Your task to perform on an android device: change notifications settings Image 0: 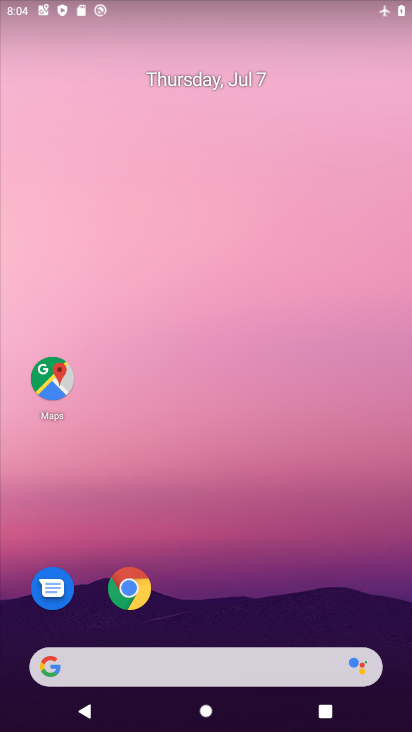
Step 0: drag from (316, 548) to (278, 325)
Your task to perform on an android device: change notifications settings Image 1: 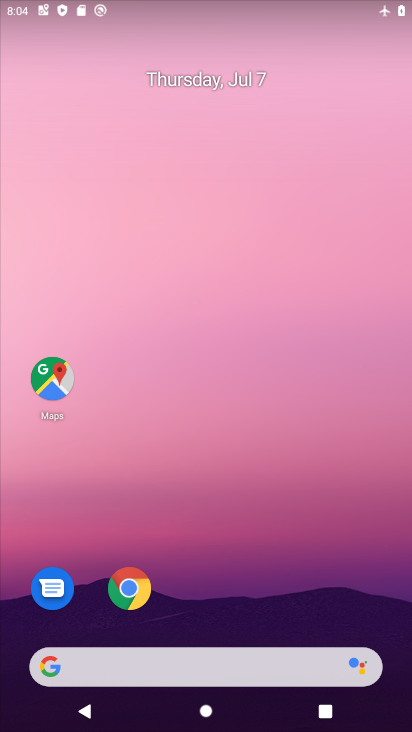
Step 1: drag from (309, 598) to (269, 73)
Your task to perform on an android device: change notifications settings Image 2: 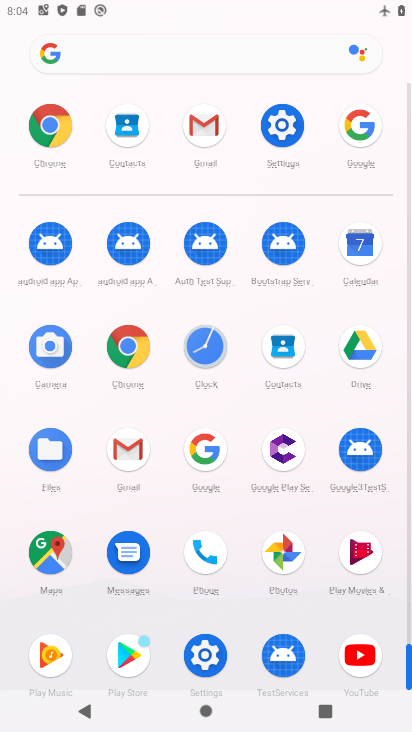
Step 2: click (293, 119)
Your task to perform on an android device: change notifications settings Image 3: 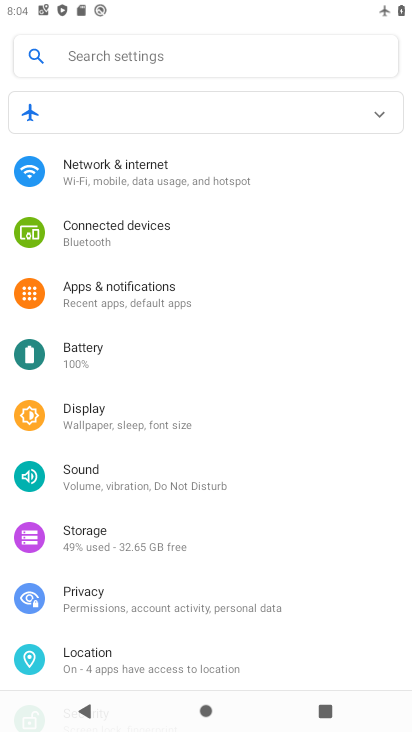
Step 3: click (150, 292)
Your task to perform on an android device: change notifications settings Image 4: 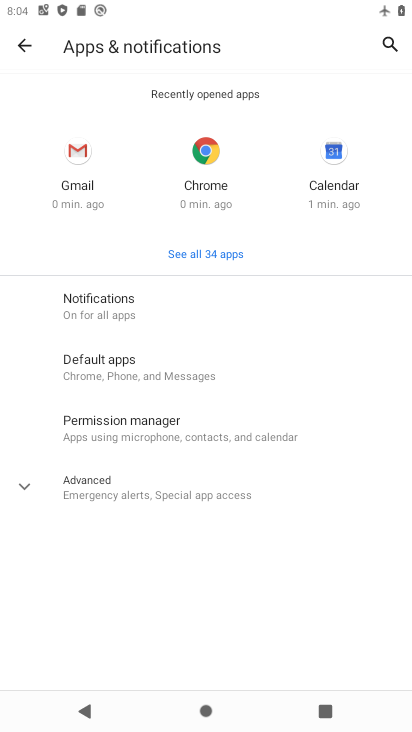
Step 4: click (116, 314)
Your task to perform on an android device: change notifications settings Image 5: 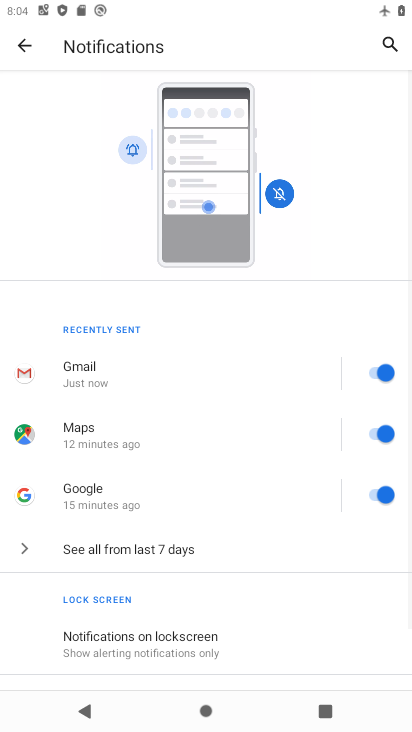
Step 5: drag from (319, 654) to (338, 129)
Your task to perform on an android device: change notifications settings Image 6: 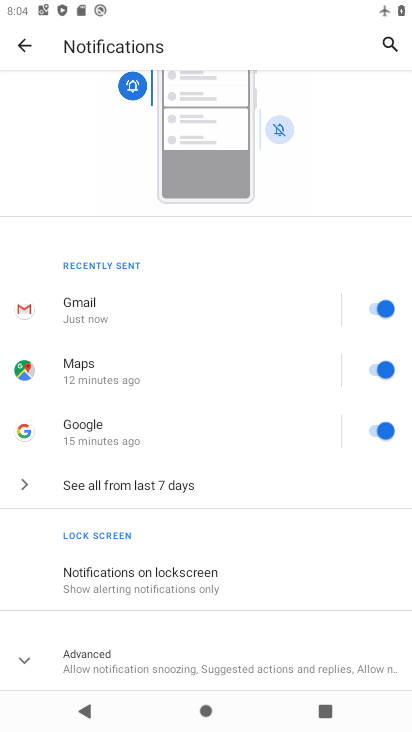
Step 6: click (189, 668)
Your task to perform on an android device: change notifications settings Image 7: 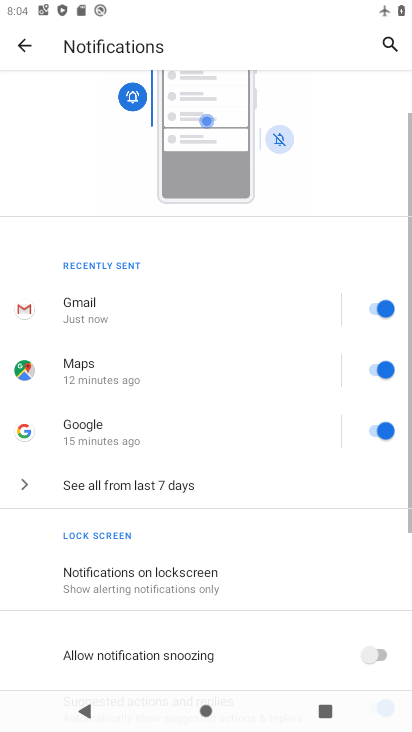
Step 7: drag from (313, 563) to (322, 193)
Your task to perform on an android device: change notifications settings Image 8: 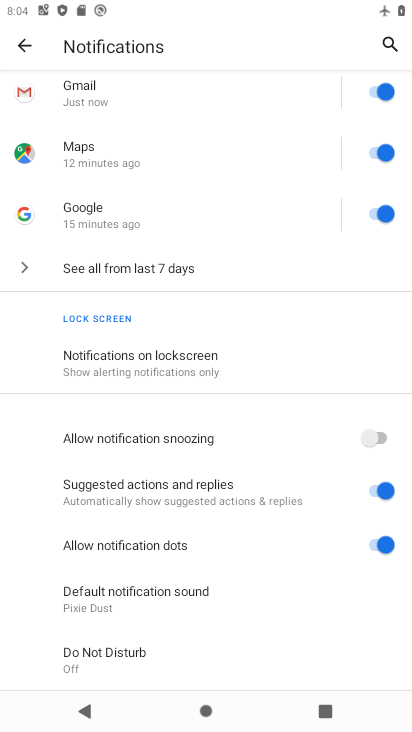
Step 8: click (372, 439)
Your task to perform on an android device: change notifications settings Image 9: 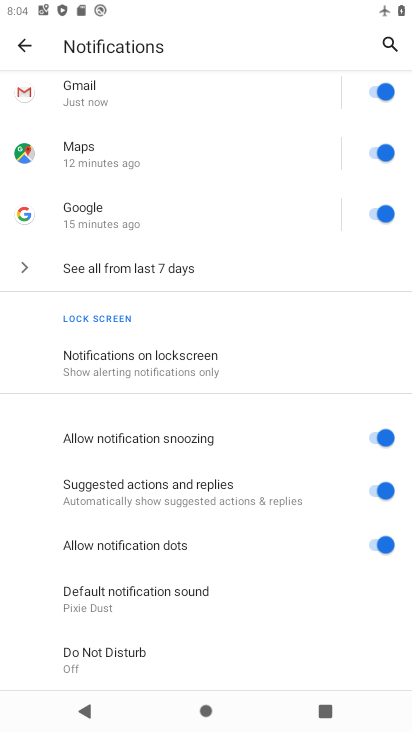
Step 9: task complete